Your task to perform on an android device: Open internet settings Image 0: 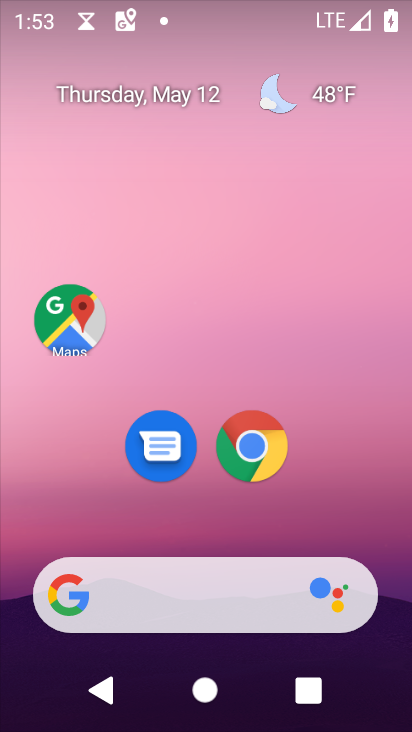
Step 0: drag from (279, 519) to (266, 75)
Your task to perform on an android device: Open internet settings Image 1: 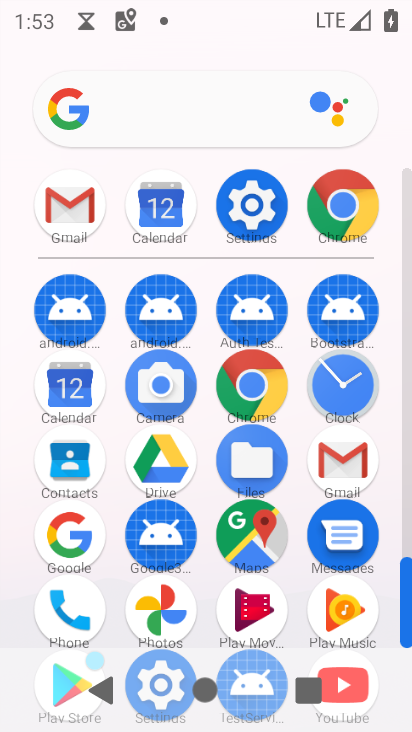
Step 1: click (263, 200)
Your task to perform on an android device: Open internet settings Image 2: 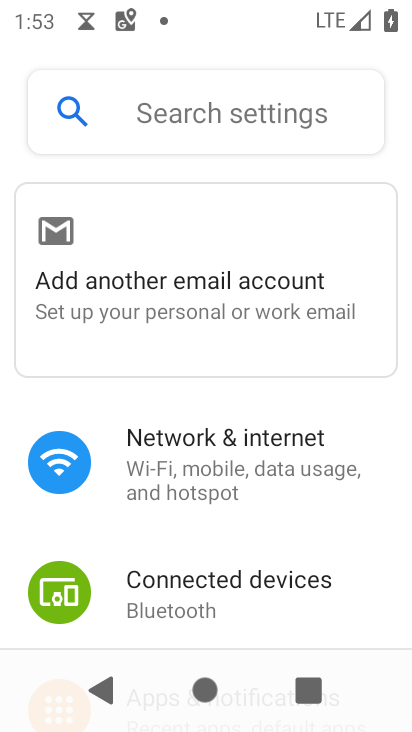
Step 2: click (253, 449)
Your task to perform on an android device: Open internet settings Image 3: 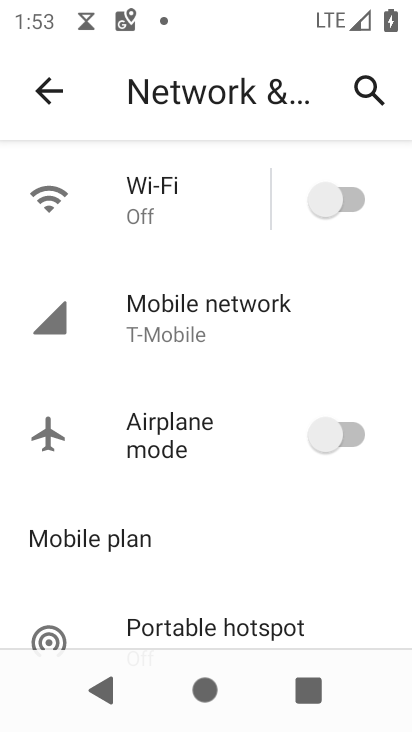
Step 3: task complete